Your task to perform on an android device: Open sound settings Image 0: 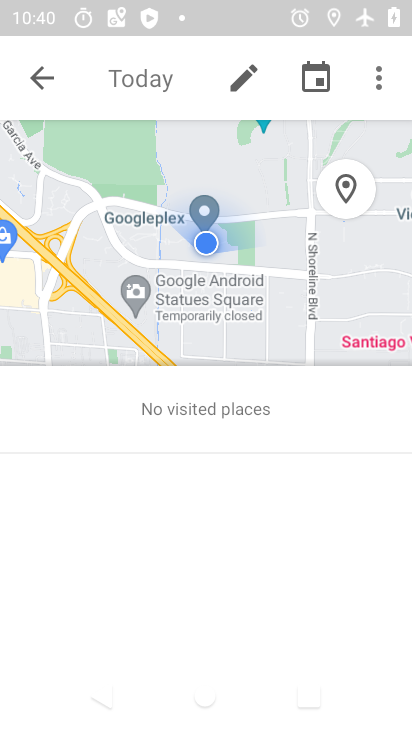
Step 0: press home button
Your task to perform on an android device: Open sound settings Image 1: 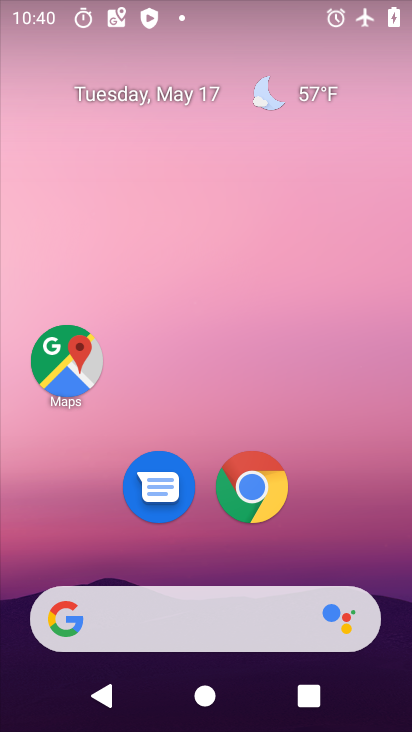
Step 1: drag from (222, 724) to (227, 128)
Your task to perform on an android device: Open sound settings Image 2: 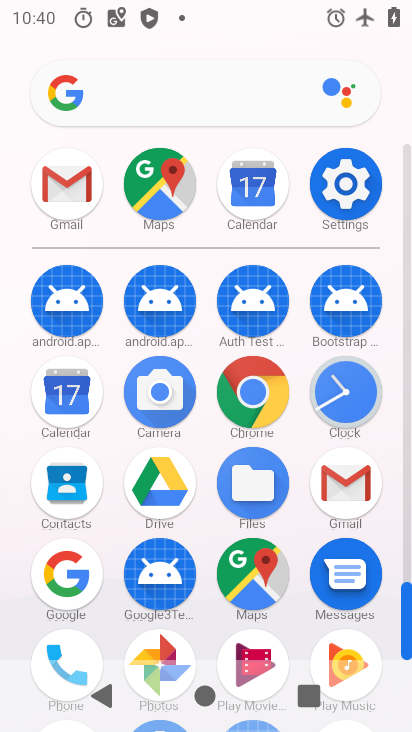
Step 2: click (352, 180)
Your task to perform on an android device: Open sound settings Image 3: 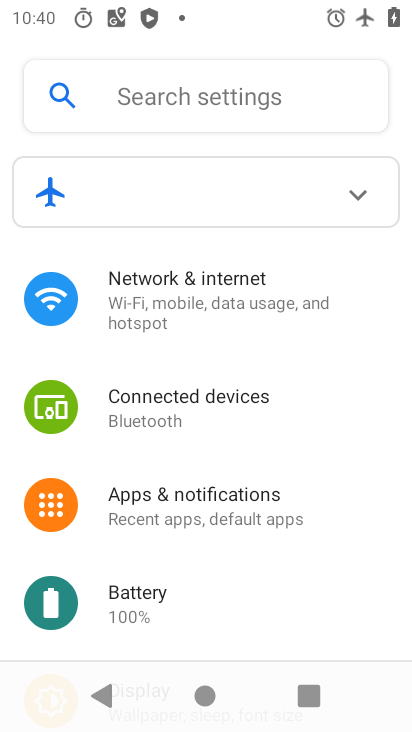
Step 3: drag from (172, 632) to (170, 321)
Your task to perform on an android device: Open sound settings Image 4: 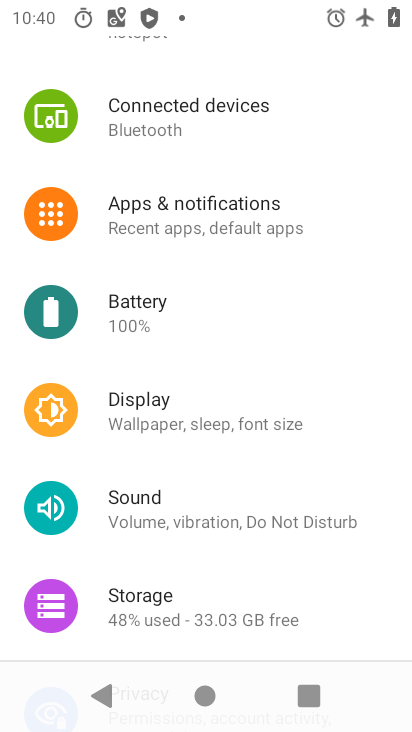
Step 4: click (143, 499)
Your task to perform on an android device: Open sound settings Image 5: 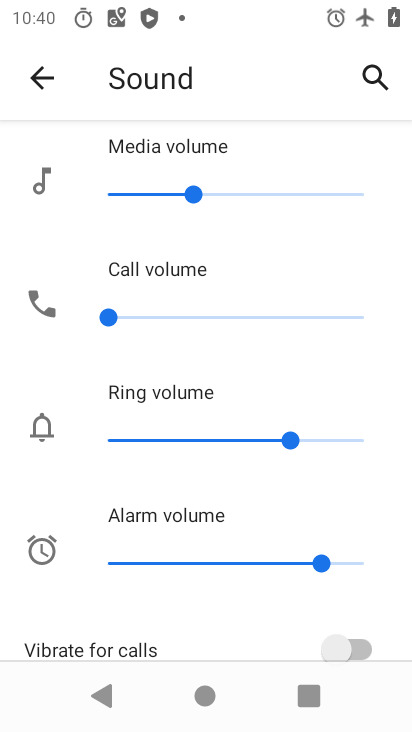
Step 5: task complete